Your task to perform on an android device: toggle notifications settings in the gmail app Image 0: 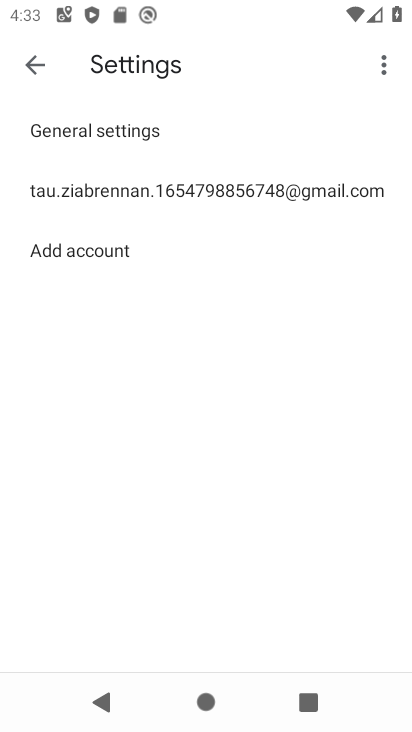
Step 0: click (269, 202)
Your task to perform on an android device: toggle notifications settings in the gmail app Image 1: 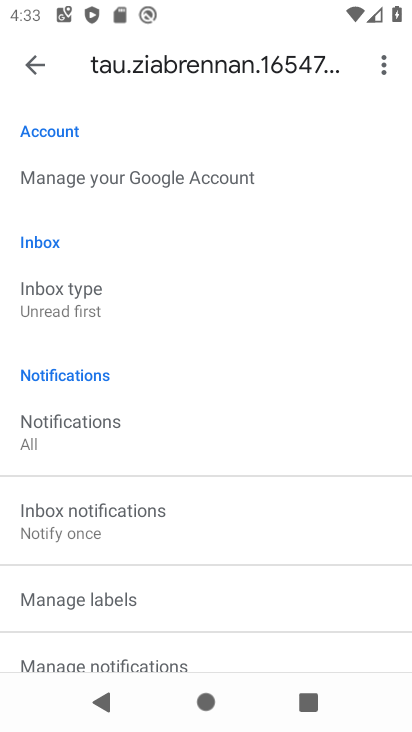
Step 1: click (144, 430)
Your task to perform on an android device: toggle notifications settings in the gmail app Image 2: 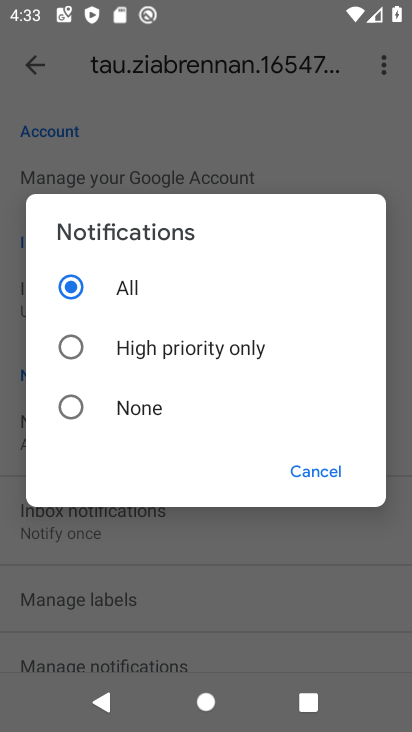
Step 2: click (144, 421)
Your task to perform on an android device: toggle notifications settings in the gmail app Image 3: 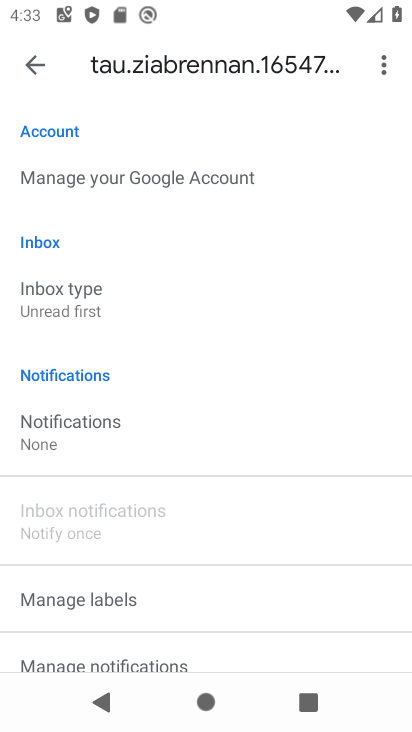
Step 3: task complete